Your task to perform on an android device: What's the weather today? Image 0: 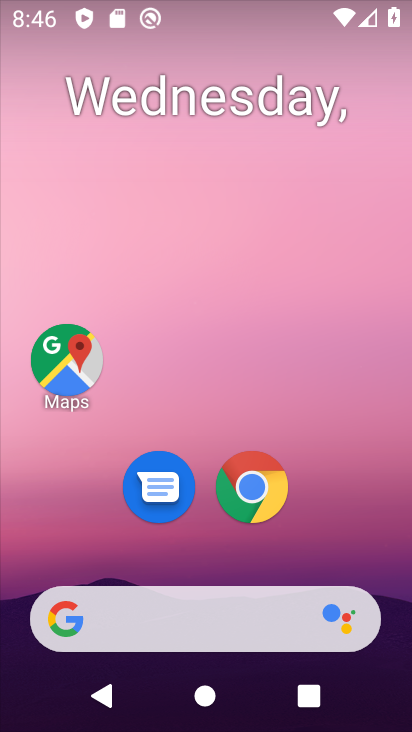
Step 0: click (271, 507)
Your task to perform on an android device: What's the weather today? Image 1: 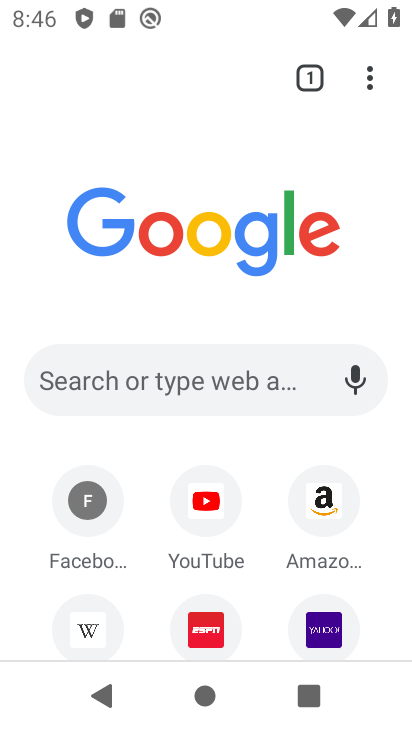
Step 1: click (236, 396)
Your task to perform on an android device: What's the weather today? Image 2: 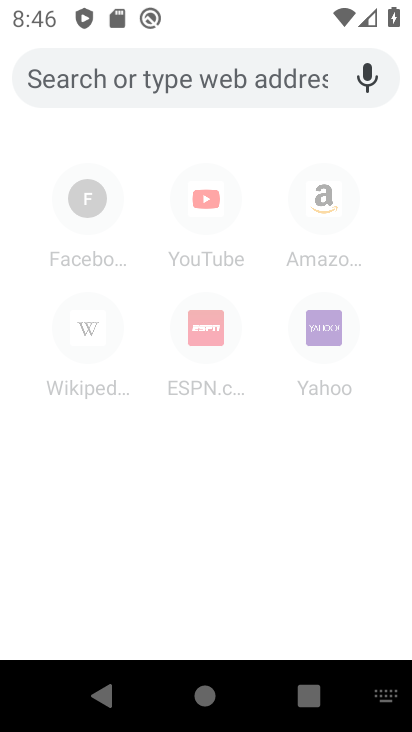
Step 2: type "What's the weather today?"
Your task to perform on an android device: What's the weather today? Image 3: 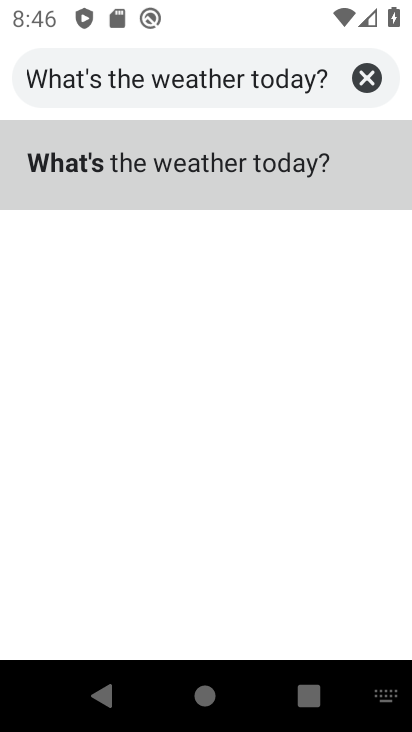
Step 3: click (264, 178)
Your task to perform on an android device: What's the weather today? Image 4: 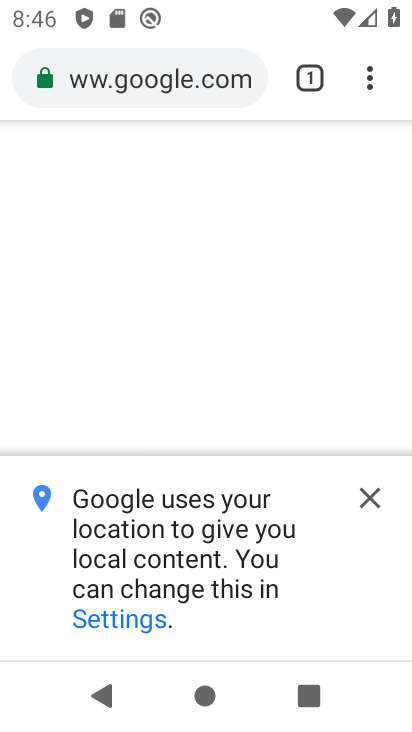
Step 4: click (372, 494)
Your task to perform on an android device: What's the weather today? Image 5: 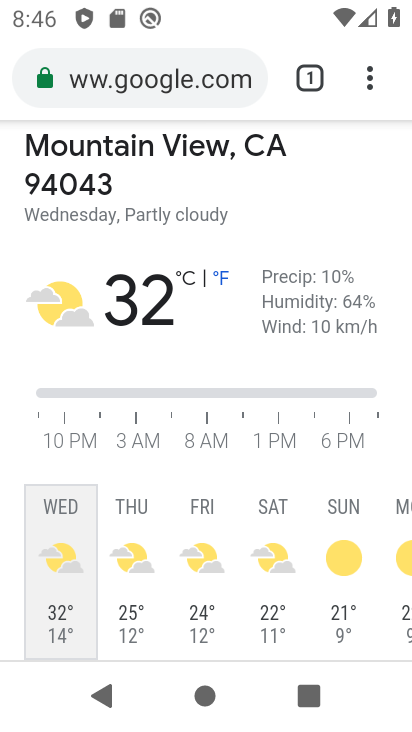
Step 5: click (127, 511)
Your task to perform on an android device: What's the weather today? Image 6: 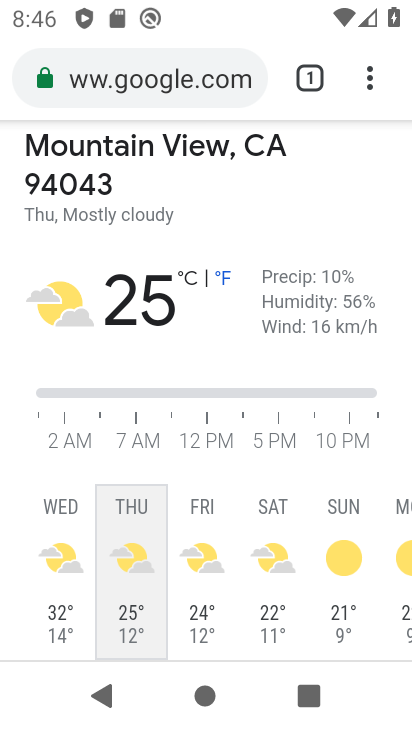
Step 6: task complete